Your task to perform on an android device: toggle data saver in the chrome app Image 0: 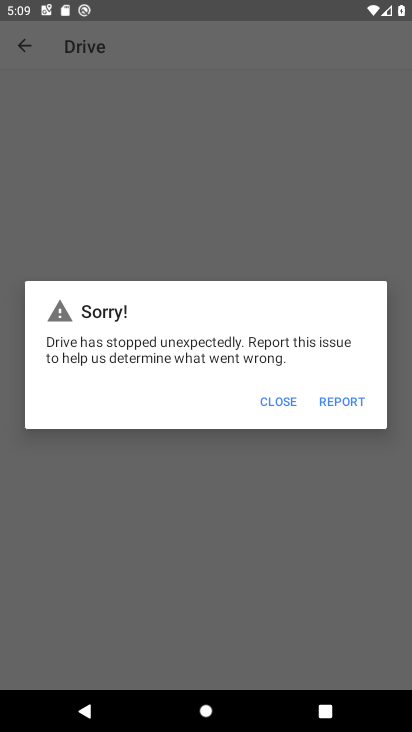
Step 0: press home button
Your task to perform on an android device: toggle data saver in the chrome app Image 1: 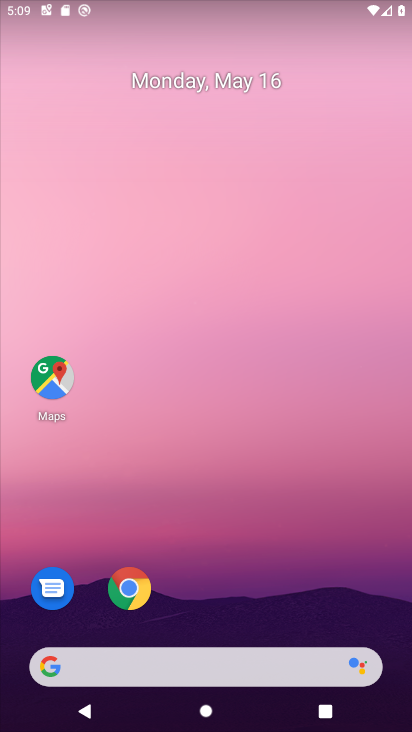
Step 1: click (147, 591)
Your task to perform on an android device: toggle data saver in the chrome app Image 2: 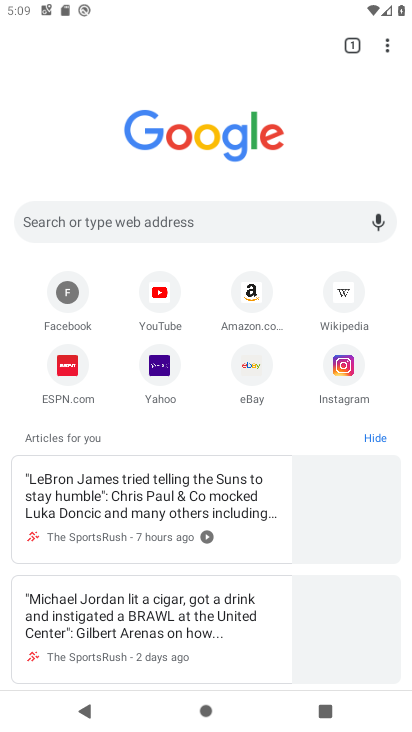
Step 2: click (382, 46)
Your task to perform on an android device: toggle data saver in the chrome app Image 3: 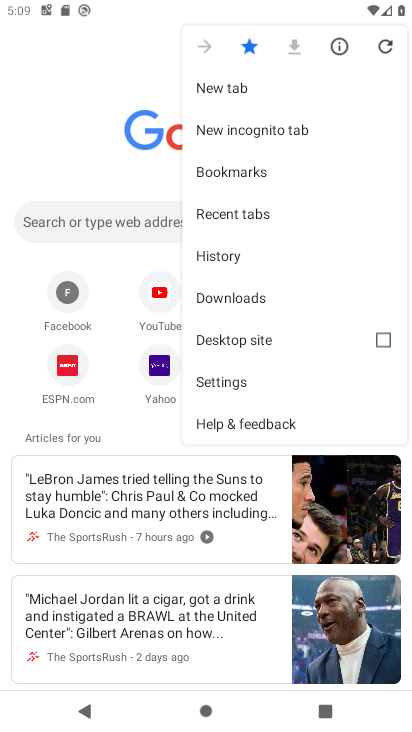
Step 3: click (251, 378)
Your task to perform on an android device: toggle data saver in the chrome app Image 4: 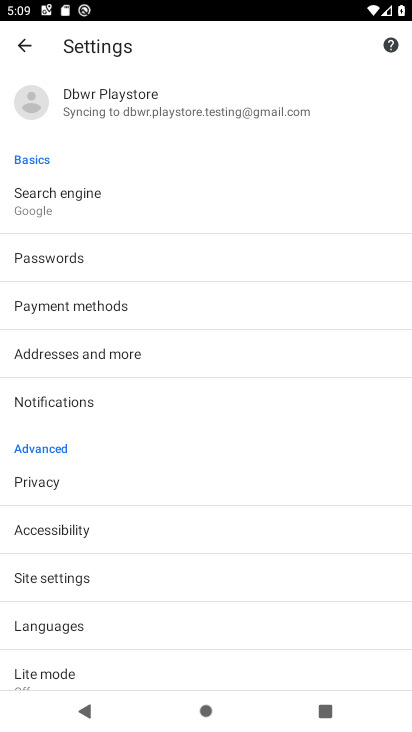
Step 4: drag from (189, 621) to (199, 314)
Your task to perform on an android device: toggle data saver in the chrome app Image 5: 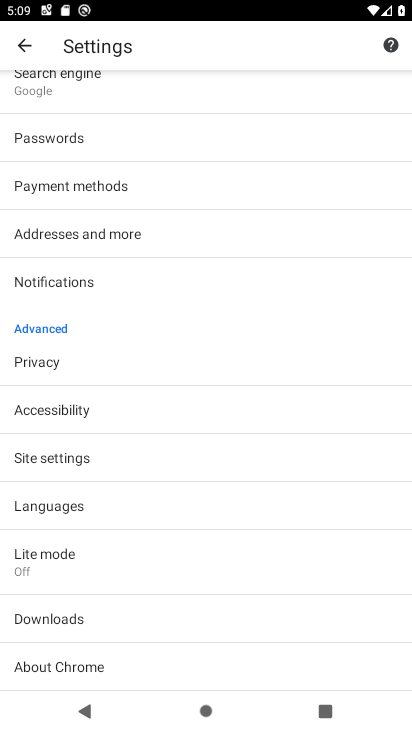
Step 5: click (103, 511)
Your task to perform on an android device: toggle data saver in the chrome app Image 6: 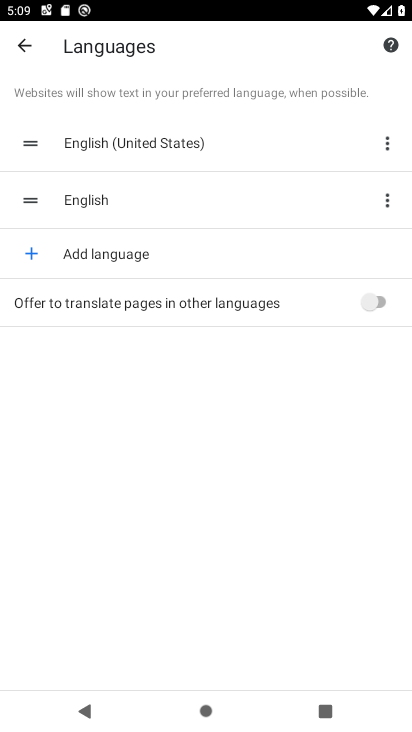
Step 6: click (20, 36)
Your task to perform on an android device: toggle data saver in the chrome app Image 7: 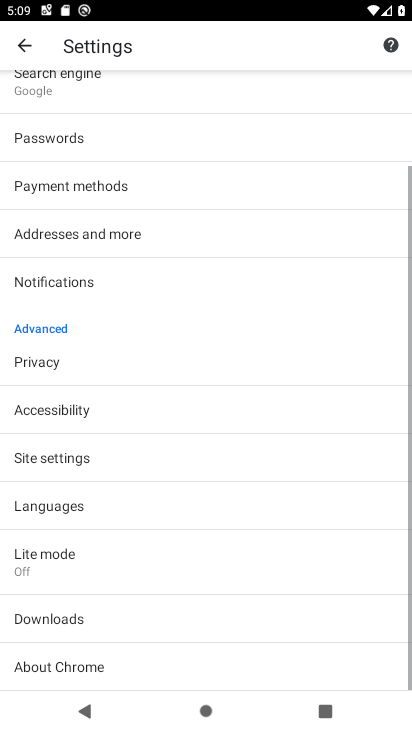
Step 7: click (94, 569)
Your task to perform on an android device: toggle data saver in the chrome app Image 8: 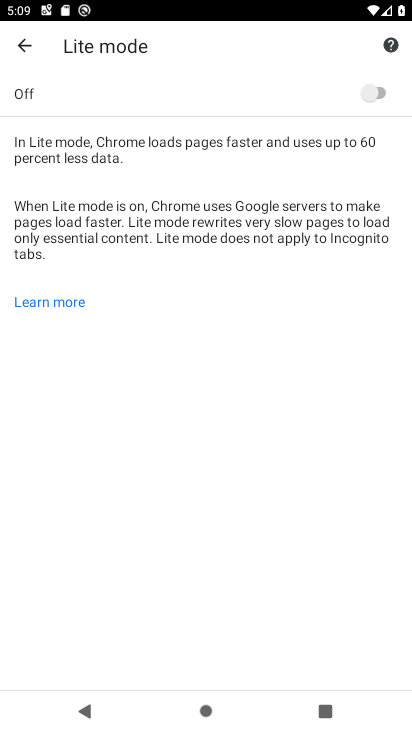
Step 8: click (385, 78)
Your task to perform on an android device: toggle data saver in the chrome app Image 9: 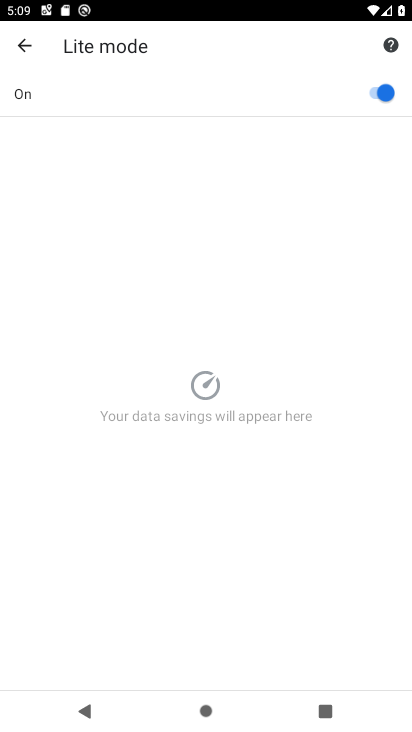
Step 9: task complete